Your task to perform on an android device: turn on data saver in the chrome app Image 0: 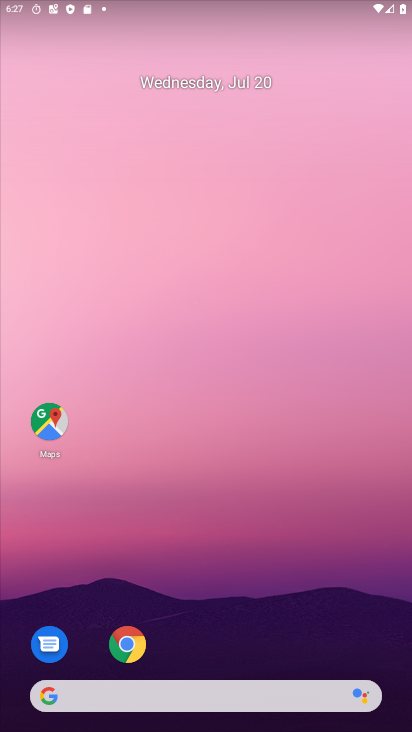
Step 0: drag from (192, 596) to (130, 170)
Your task to perform on an android device: turn on data saver in the chrome app Image 1: 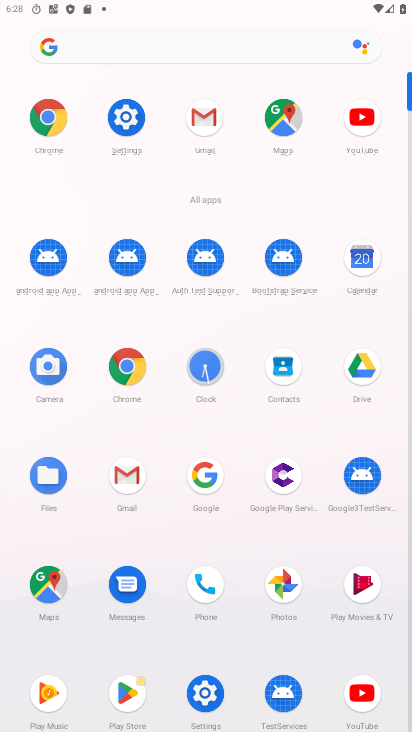
Step 1: click (37, 131)
Your task to perform on an android device: turn on data saver in the chrome app Image 2: 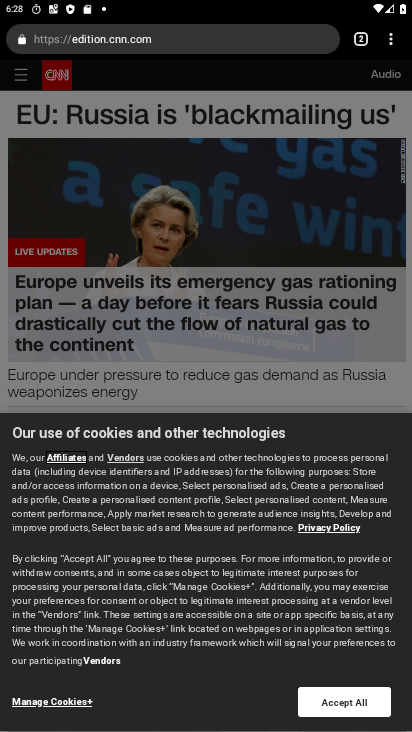
Step 2: drag from (384, 46) to (266, 435)
Your task to perform on an android device: turn on data saver in the chrome app Image 3: 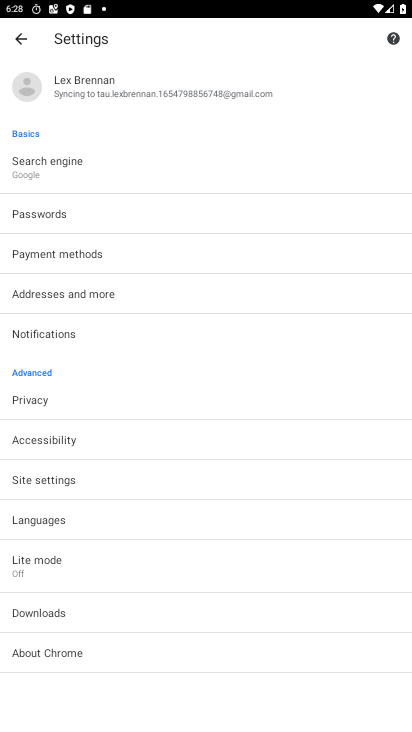
Step 3: click (21, 566)
Your task to perform on an android device: turn on data saver in the chrome app Image 4: 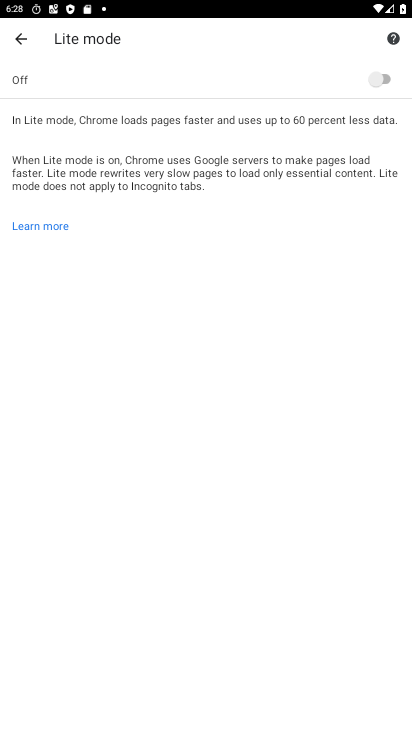
Step 4: click (378, 83)
Your task to perform on an android device: turn on data saver in the chrome app Image 5: 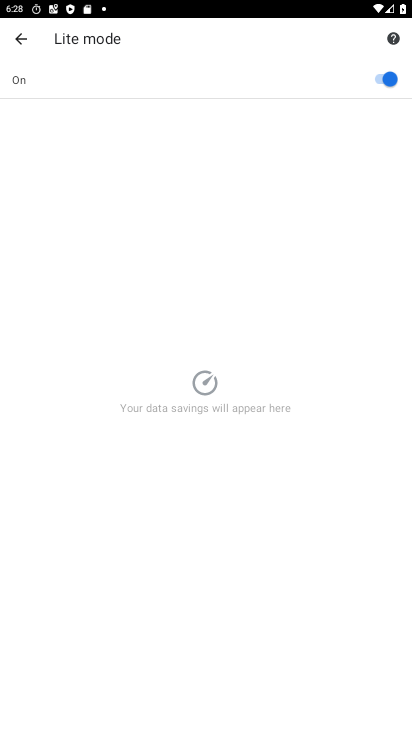
Step 5: task complete